Your task to perform on an android device: Show the shopping cart on ebay.com. Search for "dell xps" on ebay.com, select the first entry, add it to the cart, then select checkout. Image 0: 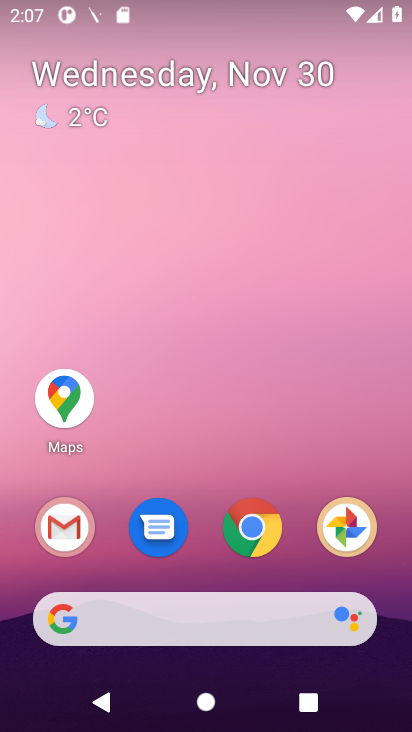
Step 0: click (243, 551)
Your task to perform on an android device: Show the shopping cart on ebay.com. Search for "dell xps" on ebay.com, select the first entry, add it to the cart, then select checkout. Image 1: 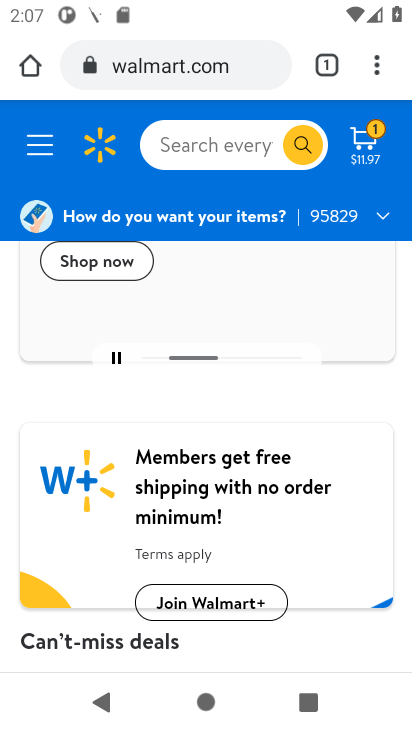
Step 1: click (217, 49)
Your task to perform on an android device: Show the shopping cart on ebay.com. Search for "dell xps" on ebay.com, select the first entry, add it to the cart, then select checkout. Image 2: 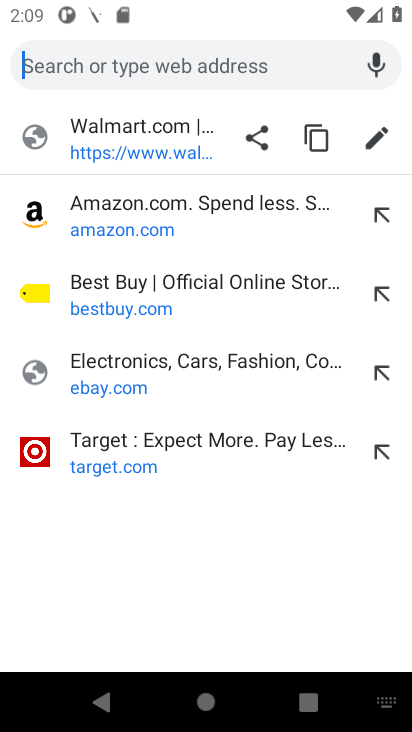
Step 2: click (142, 397)
Your task to perform on an android device: Show the shopping cart on ebay.com. Search for "dell xps" on ebay.com, select the first entry, add it to the cart, then select checkout. Image 3: 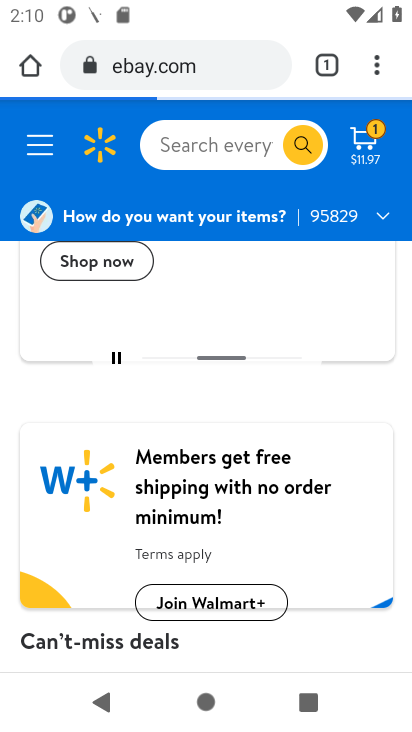
Step 3: click (177, 146)
Your task to perform on an android device: Show the shopping cart on ebay.com. Search for "dell xps" on ebay.com, select the first entry, add it to the cart, then select checkout. Image 4: 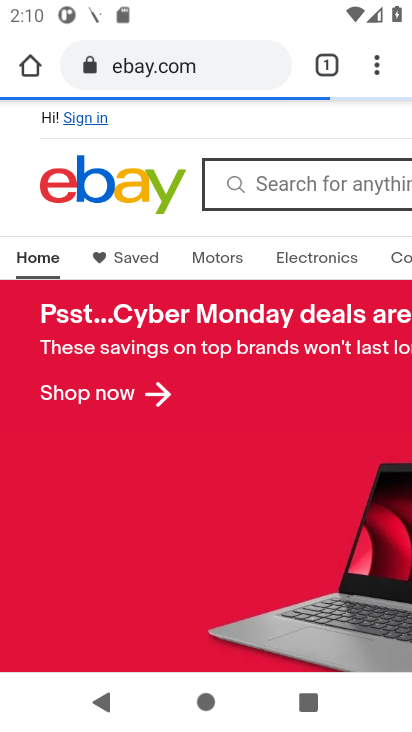
Step 4: click (230, 185)
Your task to perform on an android device: Show the shopping cart on ebay.com. Search for "dell xps" on ebay.com, select the first entry, add it to the cart, then select checkout. Image 5: 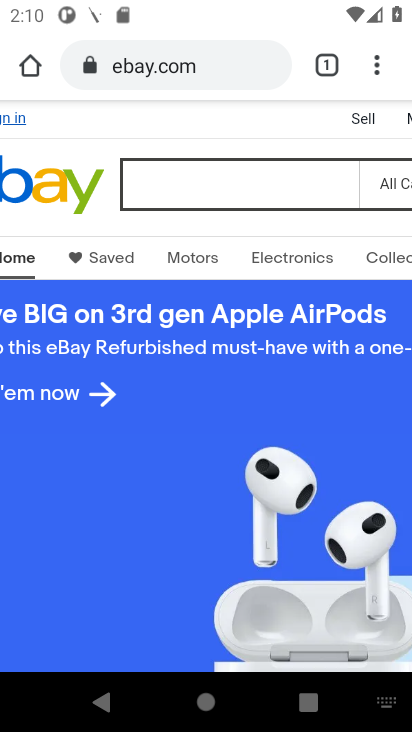
Step 5: type "dell xps"
Your task to perform on an android device: Show the shopping cart on ebay.com. Search for "dell xps" on ebay.com, select the first entry, add it to the cart, then select checkout. Image 6: 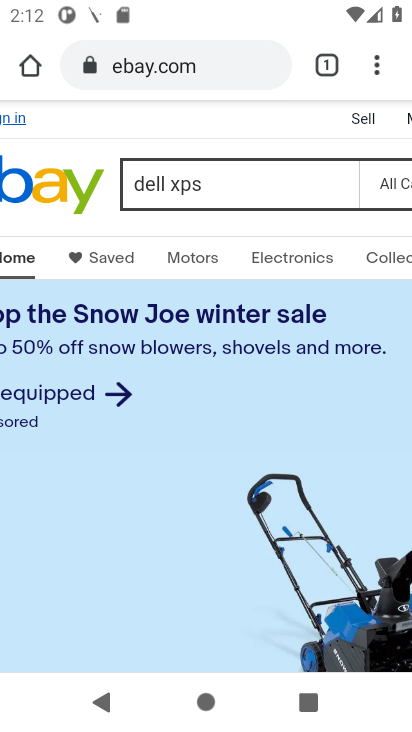
Step 6: task complete